Your task to perform on an android device: find which apps use the phone's location Image 0: 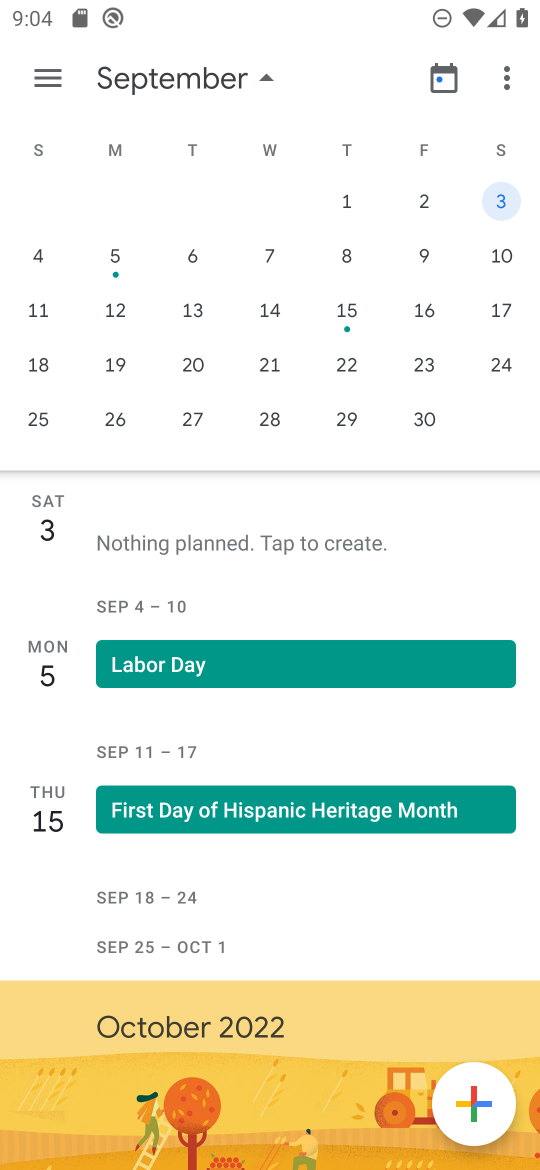
Step 0: task complete